Your task to perform on an android device: uninstall "Truecaller" Image 0: 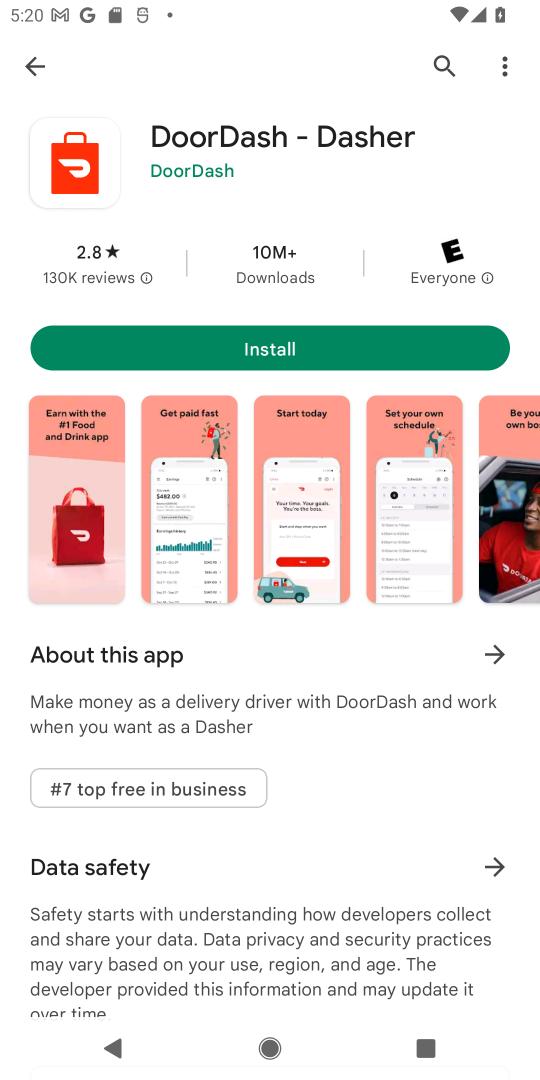
Step 0: press home button
Your task to perform on an android device: uninstall "Truecaller" Image 1: 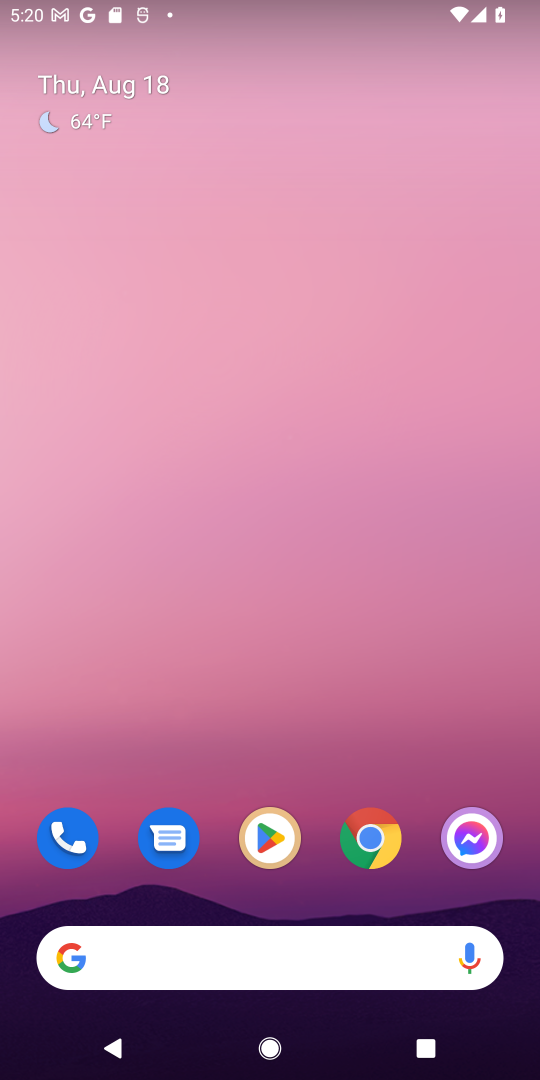
Step 1: drag from (189, 940) to (232, 204)
Your task to perform on an android device: uninstall "Truecaller" Image 2: 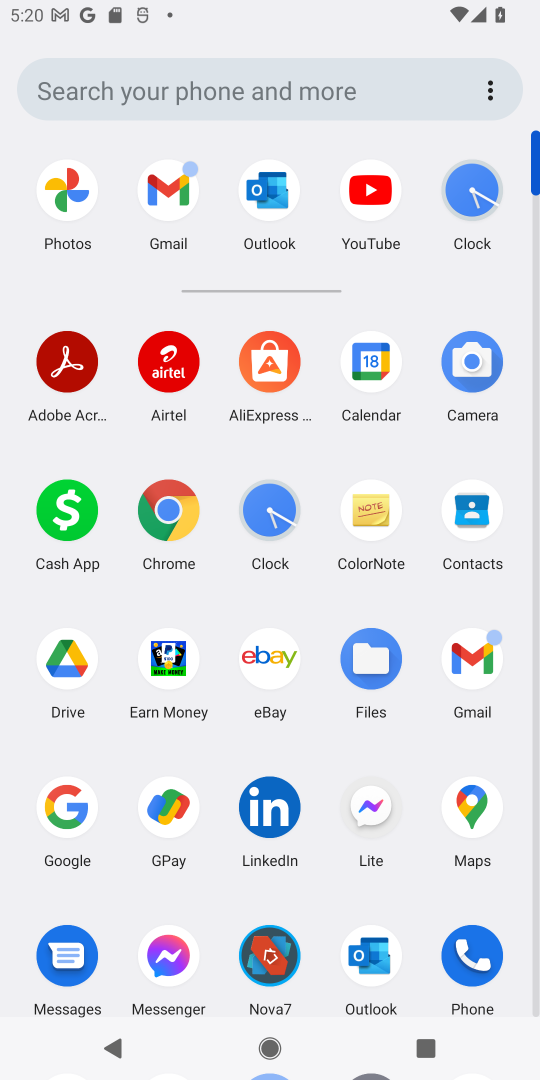
Step 2: drag from (387, 890) to (408, 394)
Your task to perform on an android device: uninstall "Truecaller" Image 3: 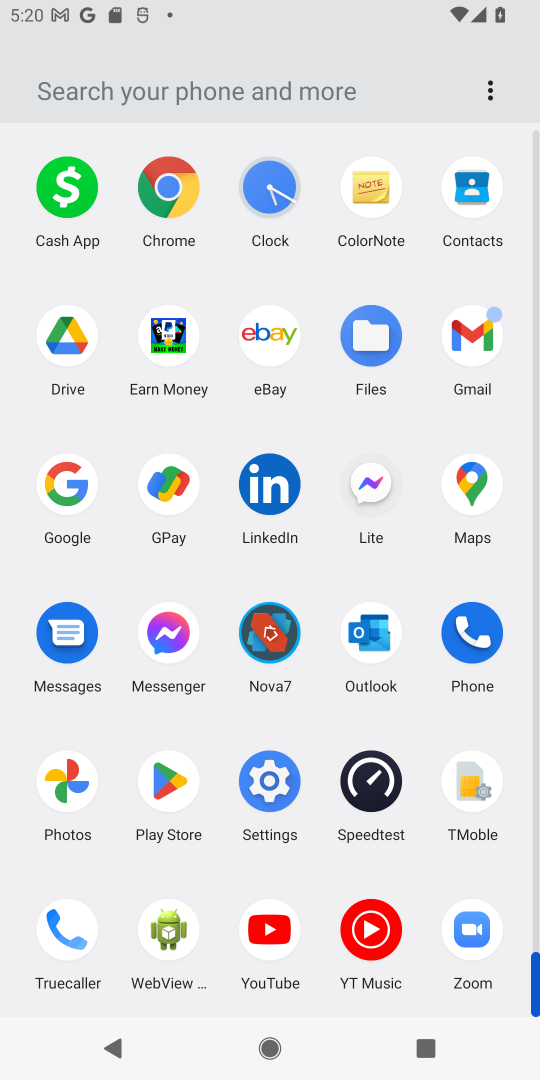
Step 3: click (165, 789)
Your task to perform on an android device: uninstall "Truecaller" Image 4: 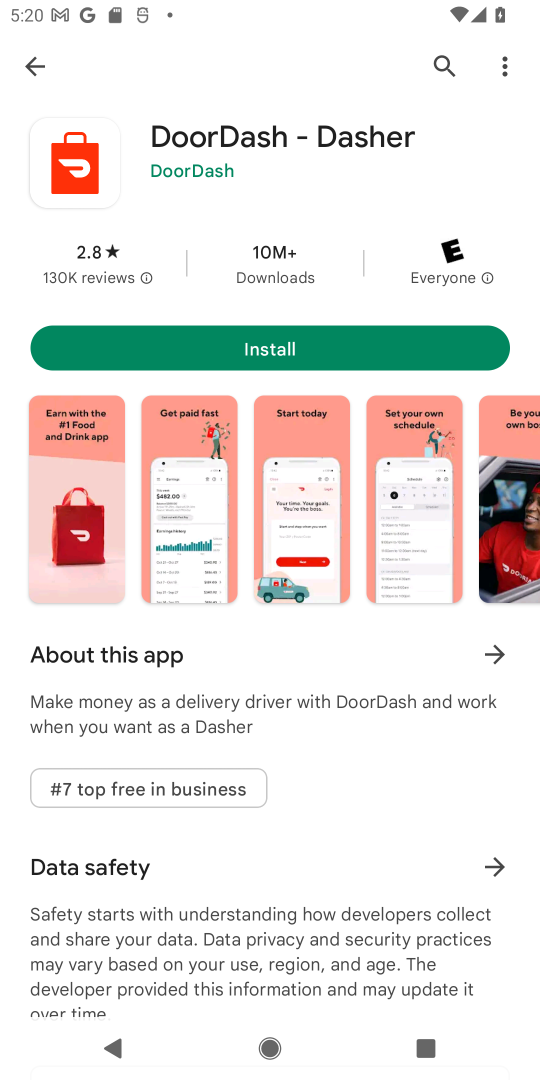
Step 4: press back button
Your task to perform on an android device: uninstall "Truecaller" Image 5: 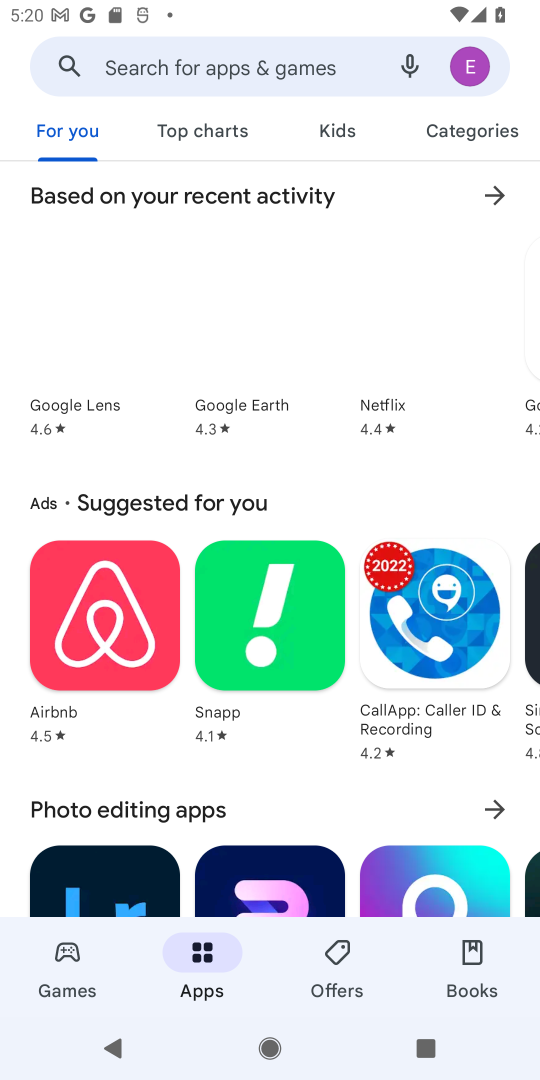
Step 5: click (335, 65)
Your task to perform on an android device: uninstall "Truecaller" Image 6: 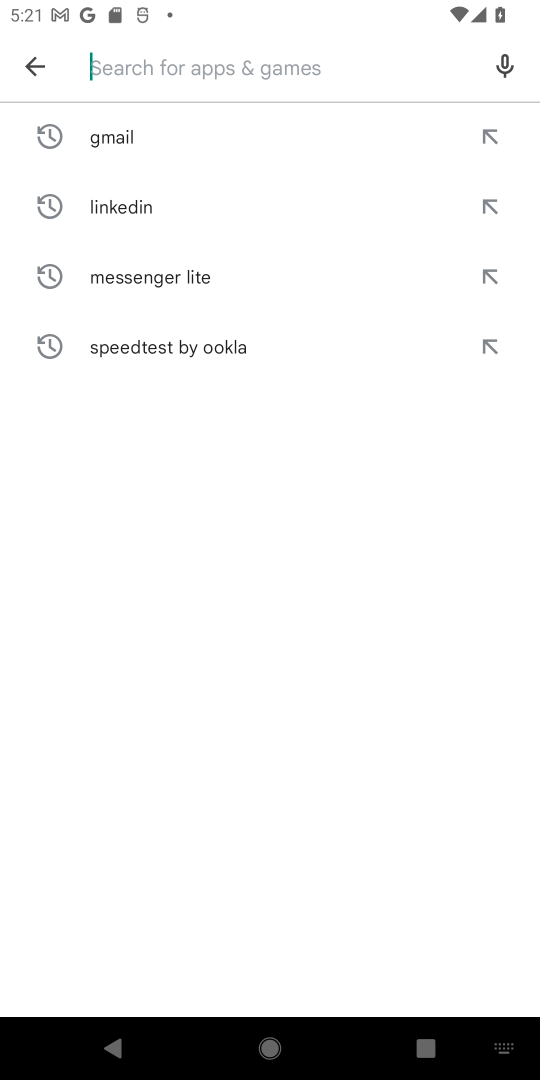
Step 6: type "Truecaller"
Your task to perform on an android device: uninstall "Truecaller" Image 7: 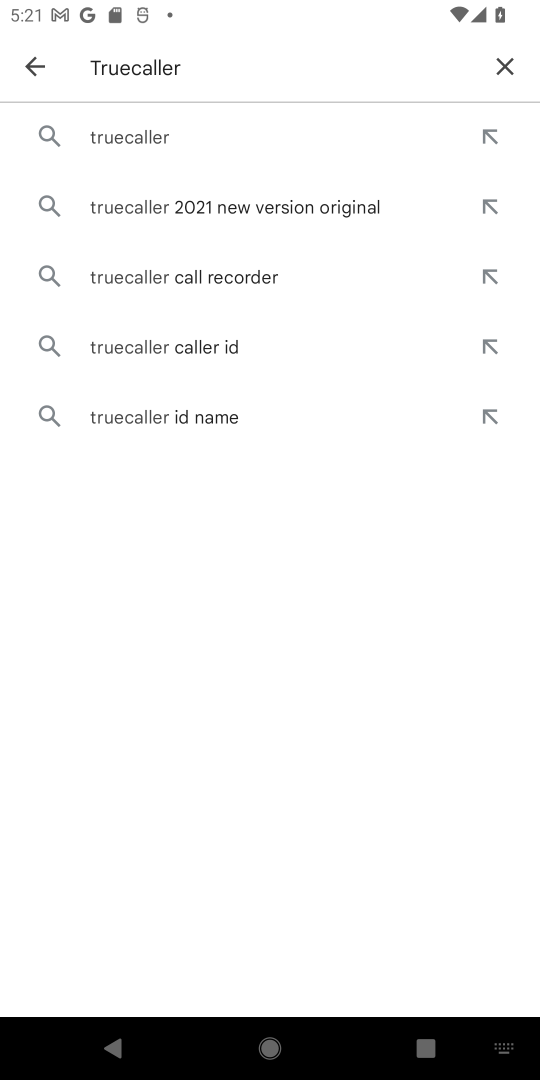
Step 7: click (133, 143)
Your task to perform on an android device: uninstall "Truecaller" Image 8: 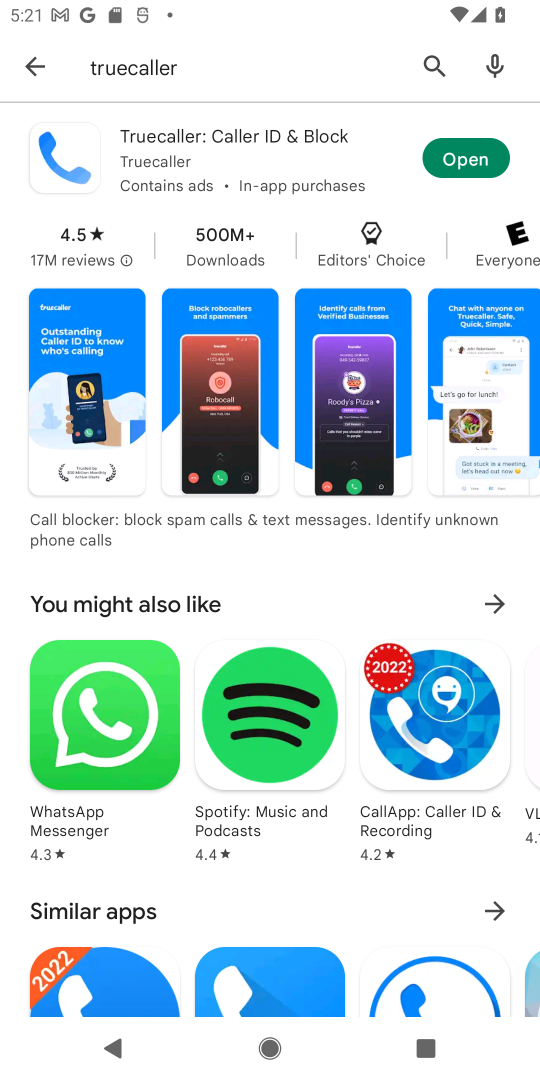
Step 8: click (133, 143)
Your task to perform on an android device: uninstall "Truecaller" Image 9: 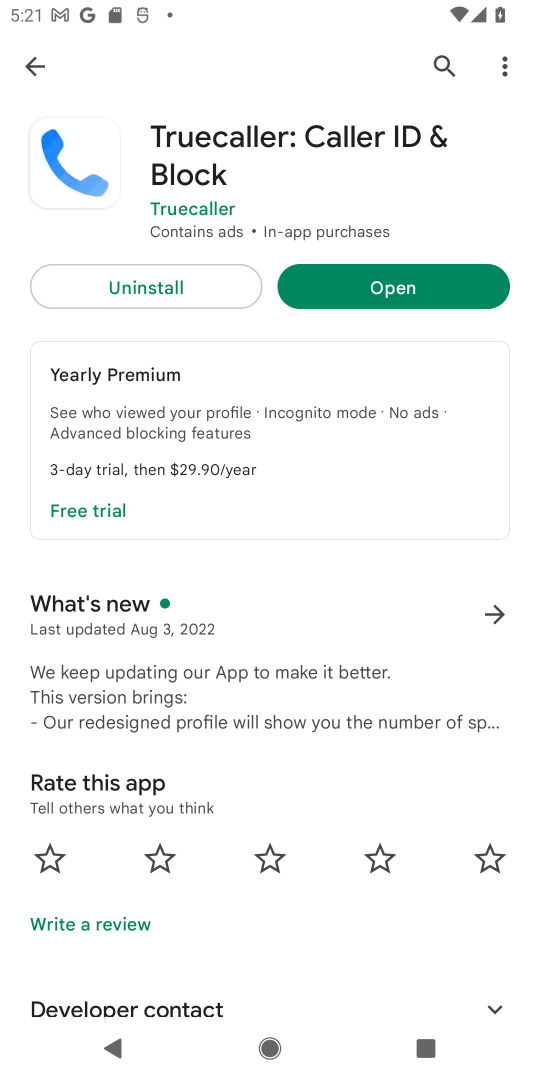
Step 9: click (147, 292)
Your task to perform on an android device: uninstall "Truecaller" Image 10: 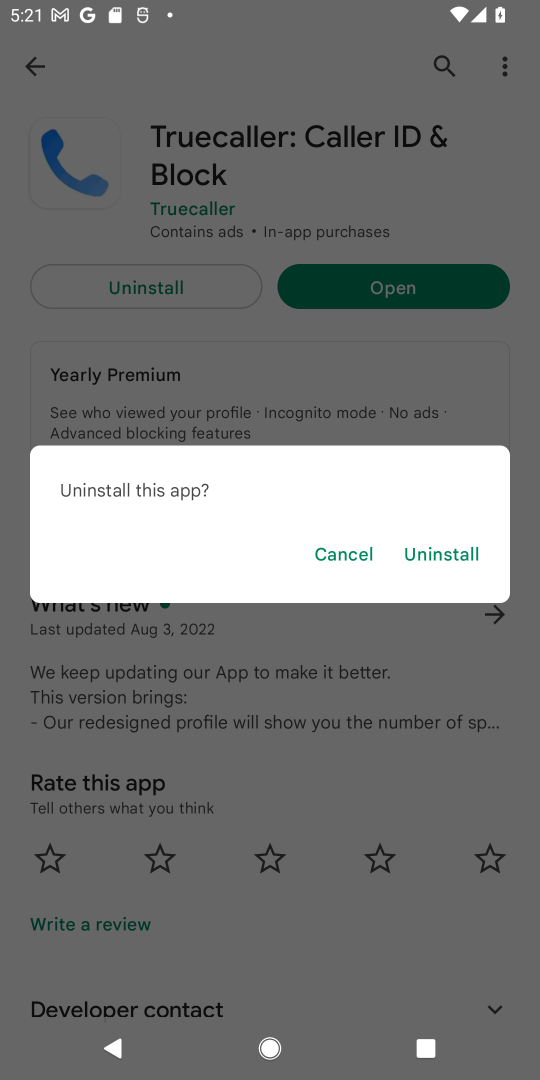
Step 10: click (451, 558)
Your task to perform on an android device: uninstall "Truecaller" Image 11: 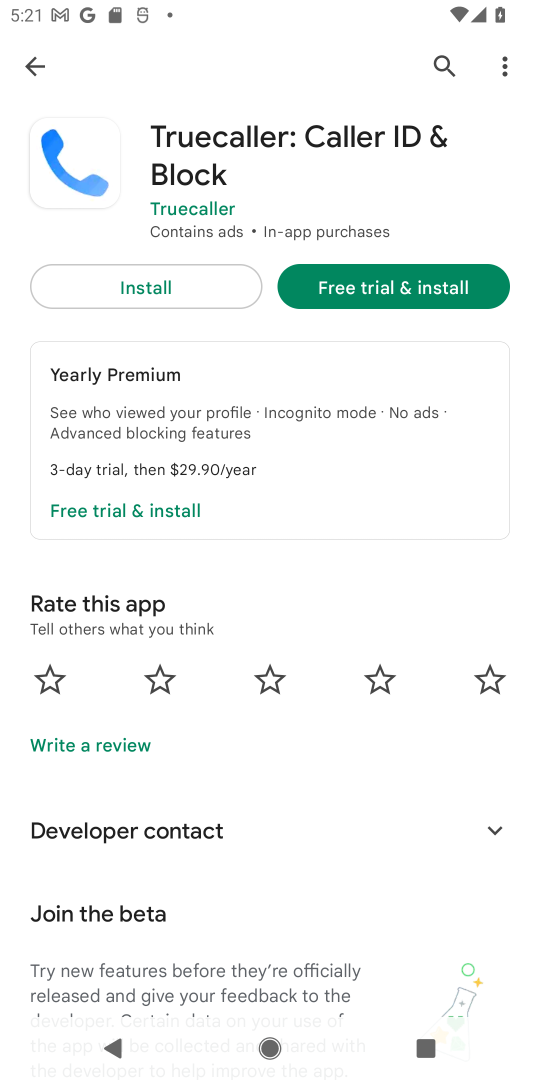
Step 11: task complete